Your task to perform on an android device: Open notification settings Image 0: 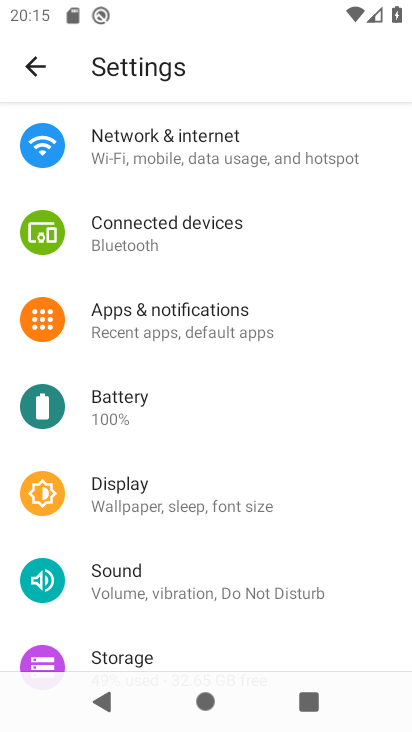
Step 0: click (214, 314)
Your task to perform on an android device: Open notification settings Image 1: 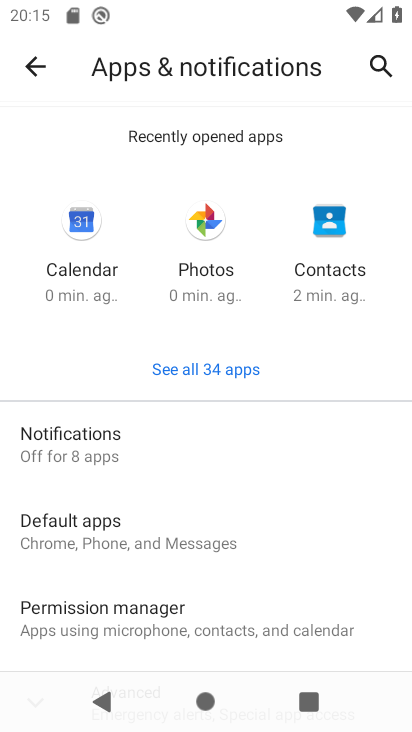
Step 1: task complete